Your task to perform on an android device: Open calendar and show me the fourth week of next month Image 0: 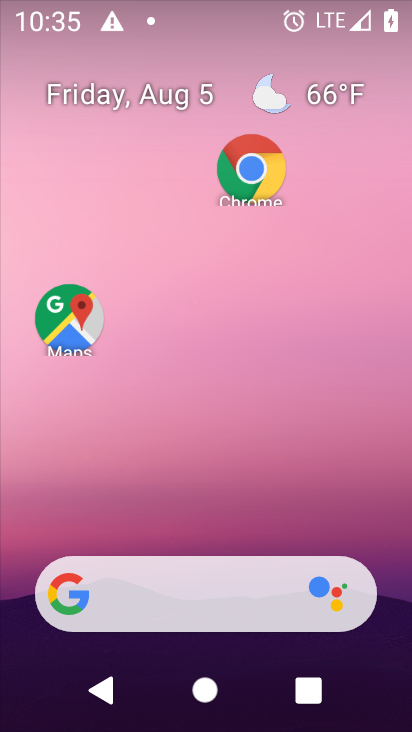
Step 0: drag from (198, 505) to (198, 65)
Your task to perform on an android device: Open calendar and show me the fourth week of next month Image 1: 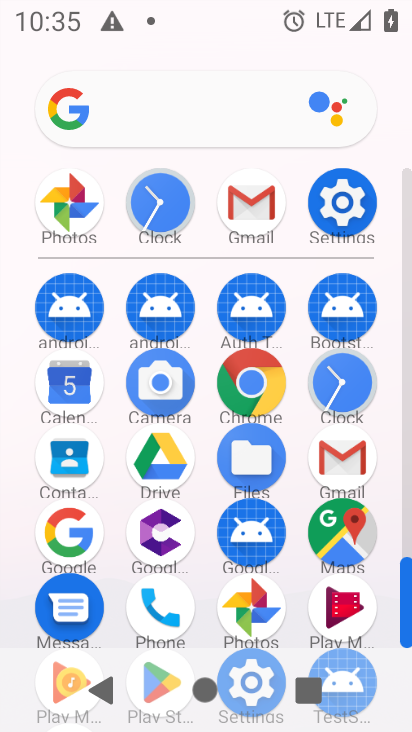
Step 1: click (65, 405)
Your task to perform on an android device: Open calendar and show me the fourth week of next month Image 2: 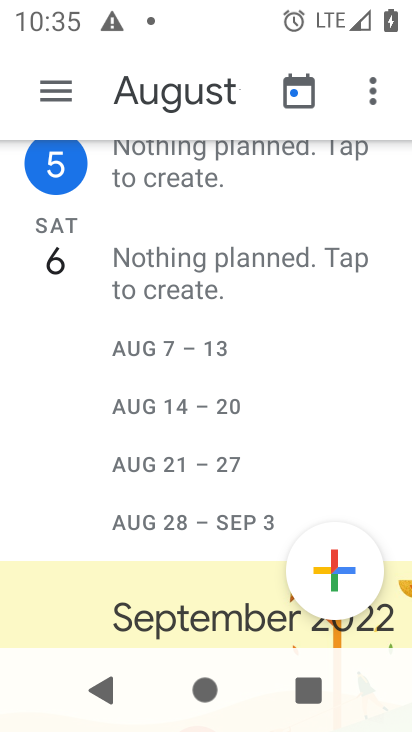
Step 2: click (229, 85)
Your task to perform on an android device: Open calendar and show me the fourth week of next month Image 3: 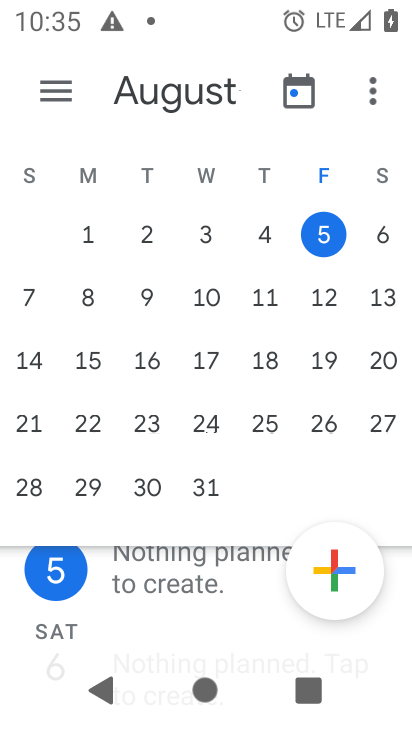
Step 3: drag from (351, 283) to (2, 253)
Your task to perform on an android device: Open calendar and show me the fourth week of next month Image 4: 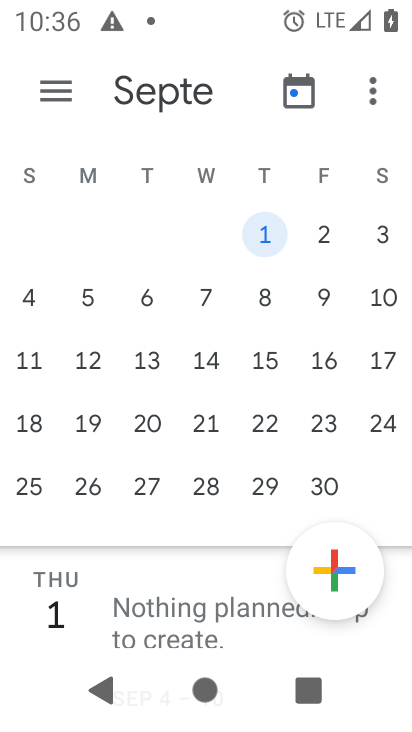
Step 4: click (30, 416)
Your task to perform on an android device: Open calendar and show me the fourth week of next month Image 5: 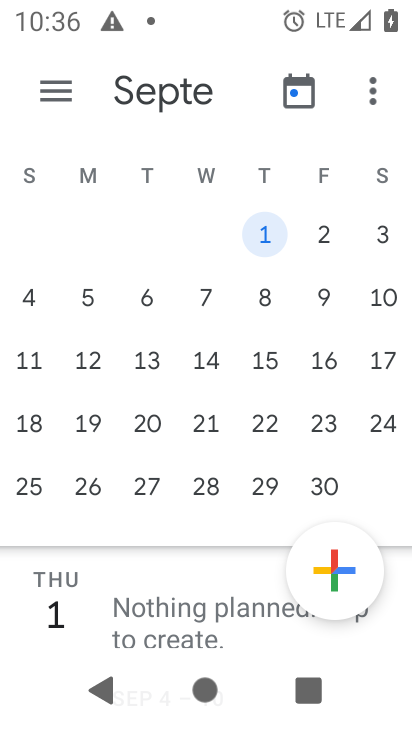
Step 5: click (32, 417)
Your task to perform on an android device: Open calendar and show me the fourth week of next month Image 6: 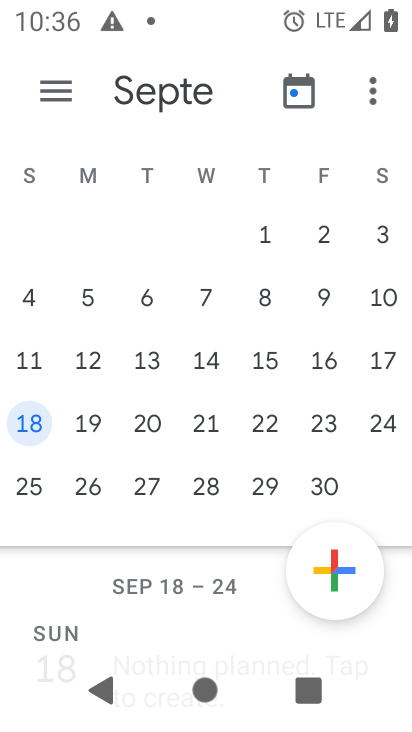
Step 6: task complete